Your task to perform on an android device: Open settings Image 0: 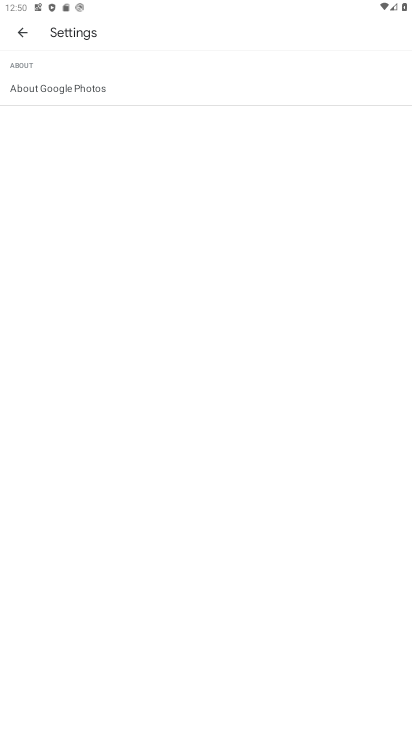
Step 0: press home button
Your task to perform on an android device: Open settings Image 1: 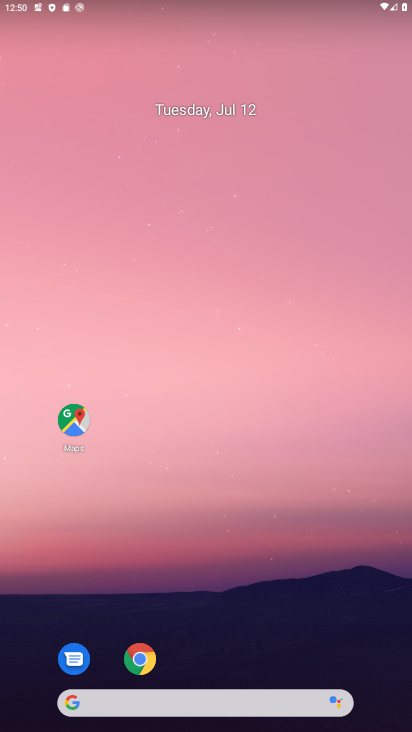
Step 1: drag from (211, 726) to (202, 68)
Your task to perform on an android device: Open settings Image 2: 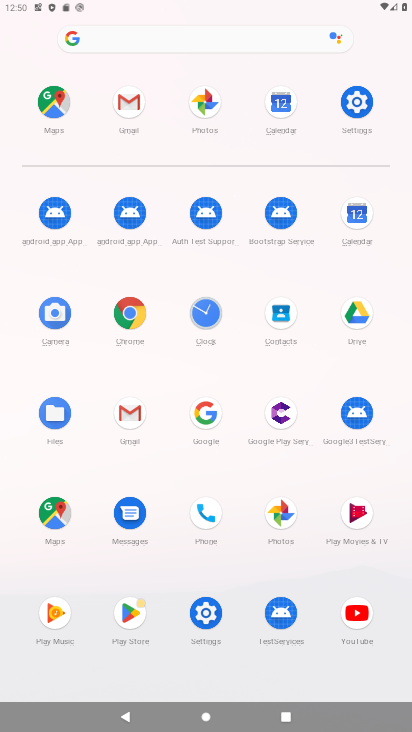
Step 2: click (357, 106)
Your task to perform on an android device: Open settings Image 3: 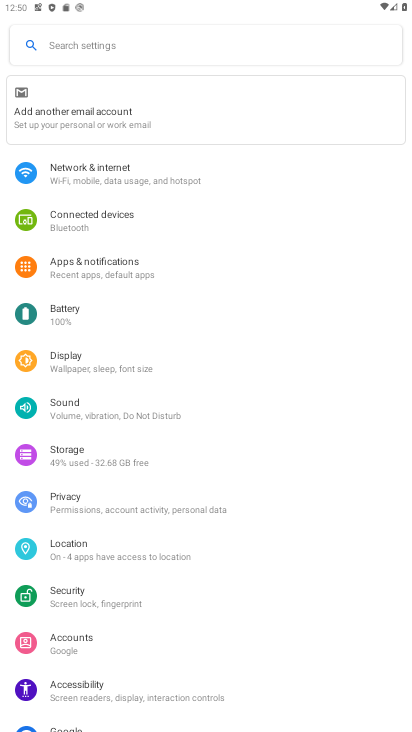
Step 3: task complete